Your task to perform on an android device: What is the news today? Image 0: 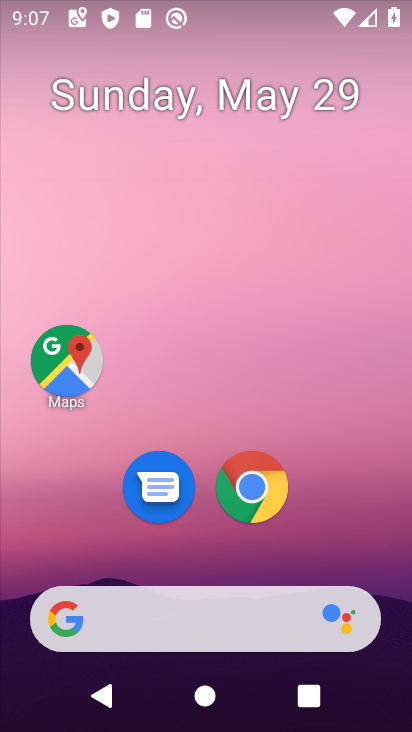
Step 0: click (176, 636)
Your task to perform on an android device: What is the news today? Image 1: 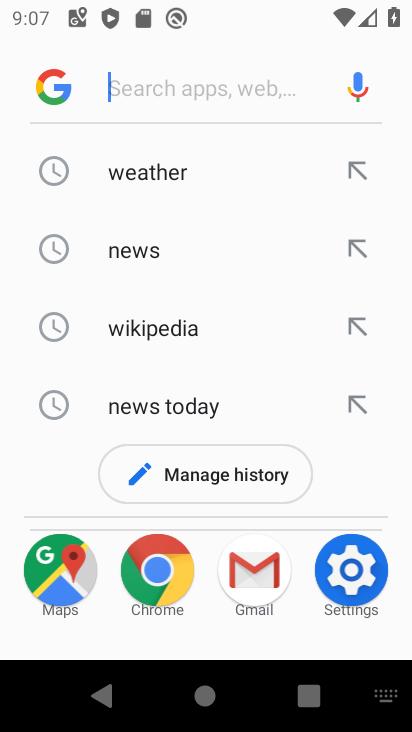
Step 1: click (189, 260)
Your task to perform on an android device: What is the news today? Image 2: 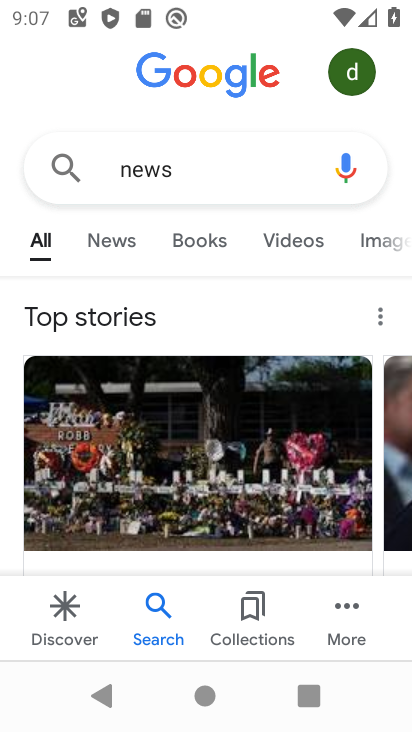
Step 2: task complete